Your task to perform on an android device: Open Amazon Image 0: 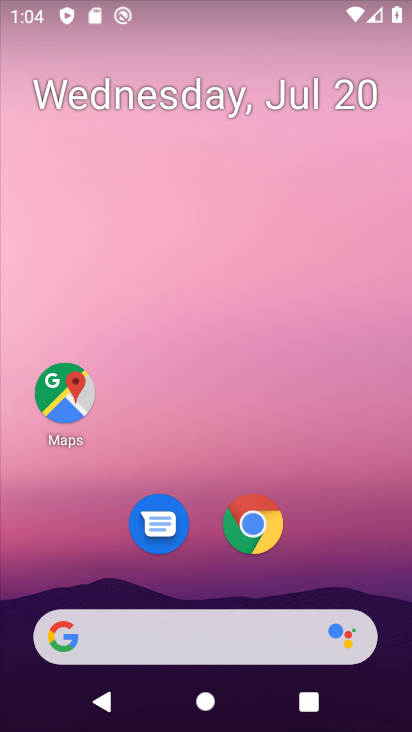
Step 0: click (258, 521)
Your task to perform on an android device: Open Amazon Image 1: 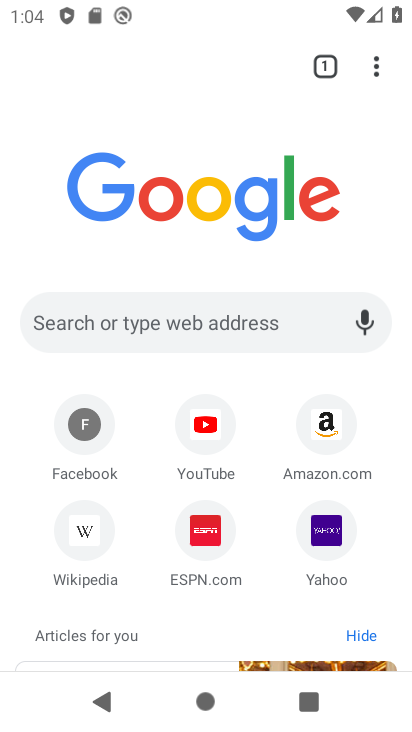
Step 1: click (332, 426)
Your task to perform on an android device: Open Amazon Image 2: 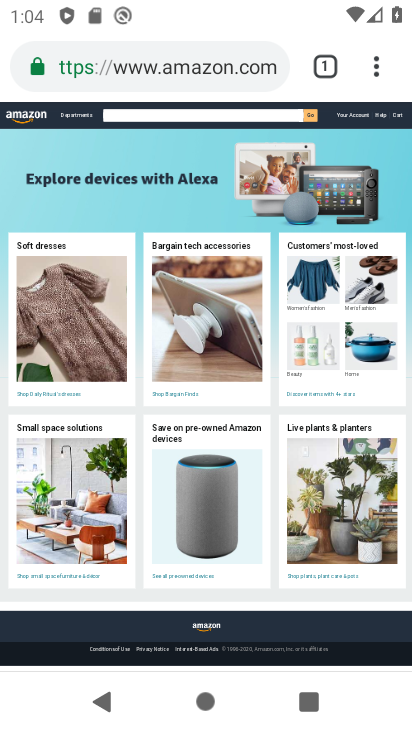
Step 2: task complete